Your task to perform on an android device: set an alarm Image 0: 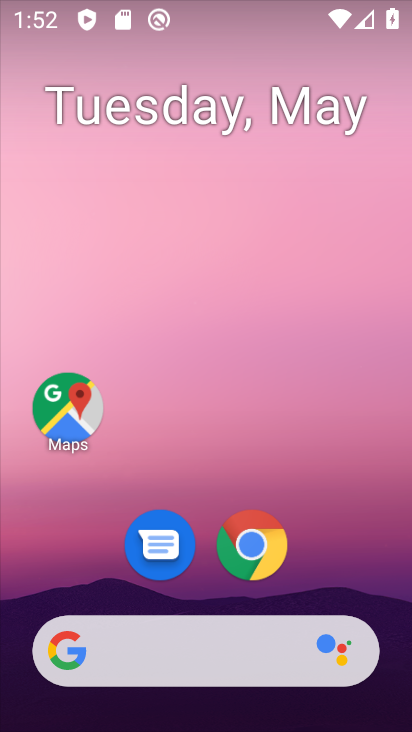
Step 0: drag from (359, 561) to (257, 31)
Your task to perform on an android device: set an alarm Image 1: 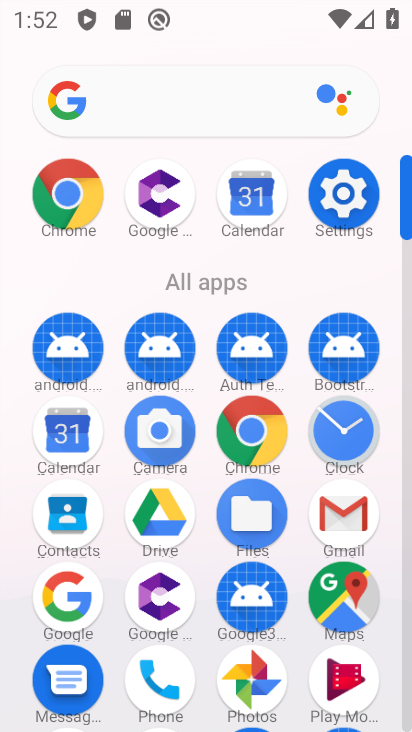
Step 1: drag from (0, 563) to (8, 240)
Your task to perform on an android device: set an alarm Image 2: 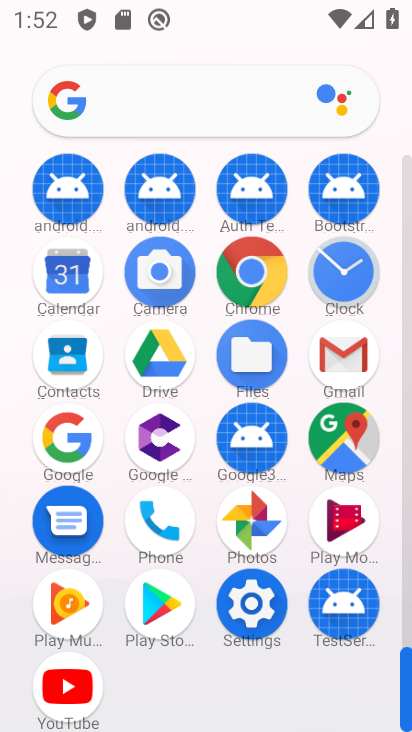
Step 2: click (344, 268)
Your task to perform on an android device: set an alarm Image 3: 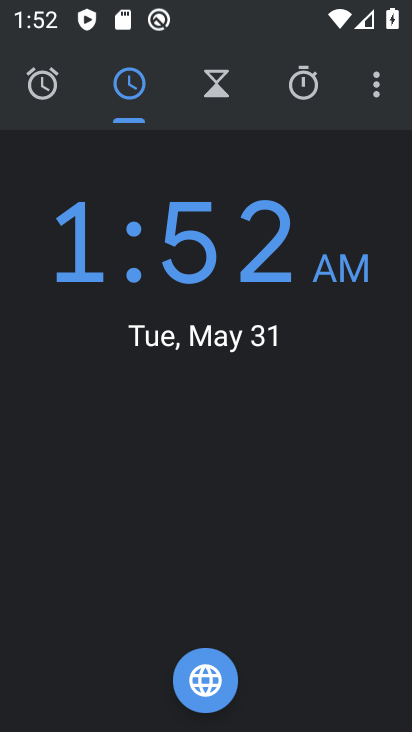
Step 3: click (27, 93)
Your task to perform on an android device: set an alarm Image 4: 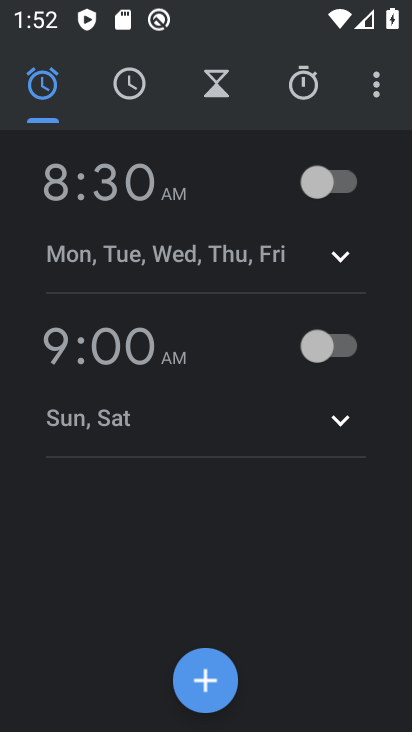
Step 4: click (198, 682)
Your task to perform on an android device: set an alarm Image 5: 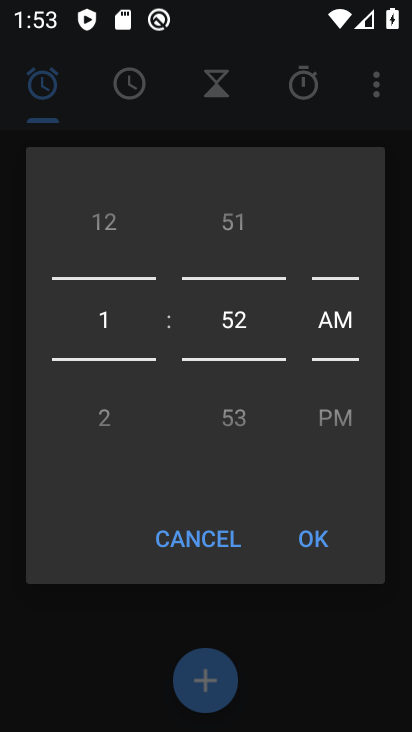
Step 5: drag from (116, 242) to (118, 401)
Your task to perform on an android device: set an alarm Image 6: 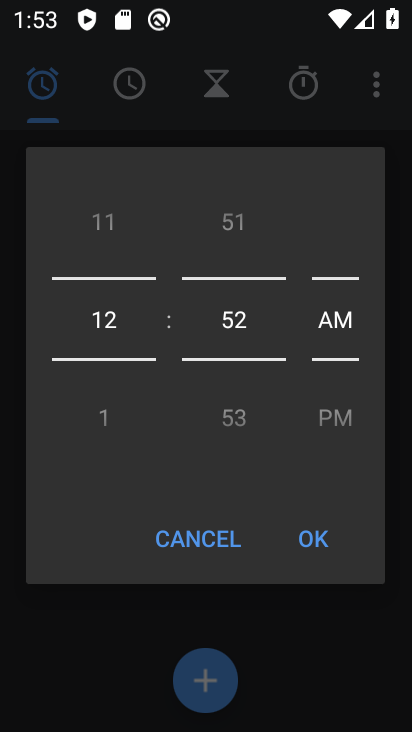
Step 6: drag from (333, 401) to (329, 240)
Your task to perform on an android device: set an alarm Image 7: 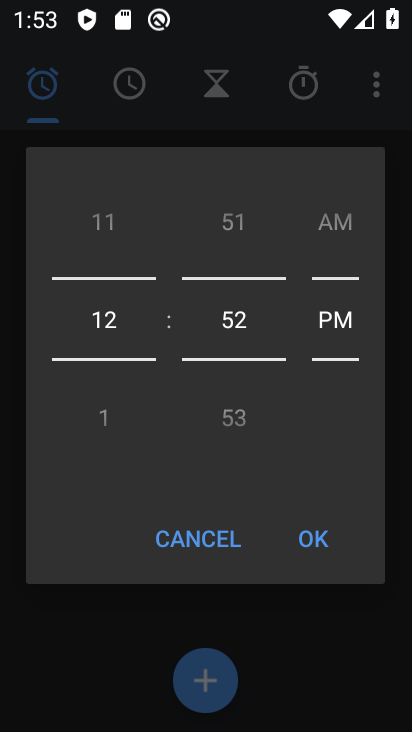
Step 7: click (314, 532)
Your task to perform on an android device: set an alarm Image 8: 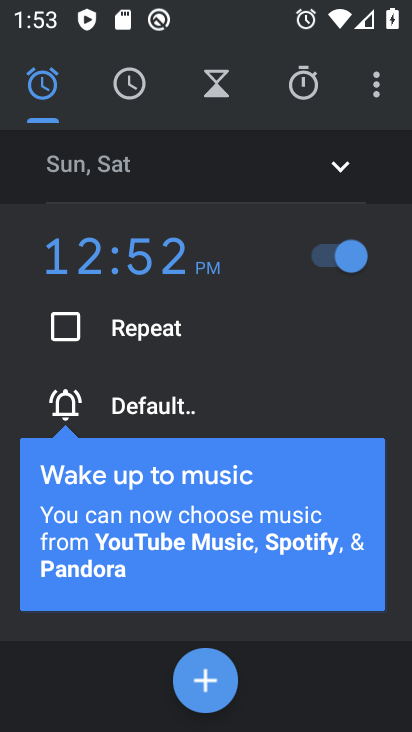
Step 8: task complete